Your task to perform on an android device: toggle data saver in the chrome app Image 0: 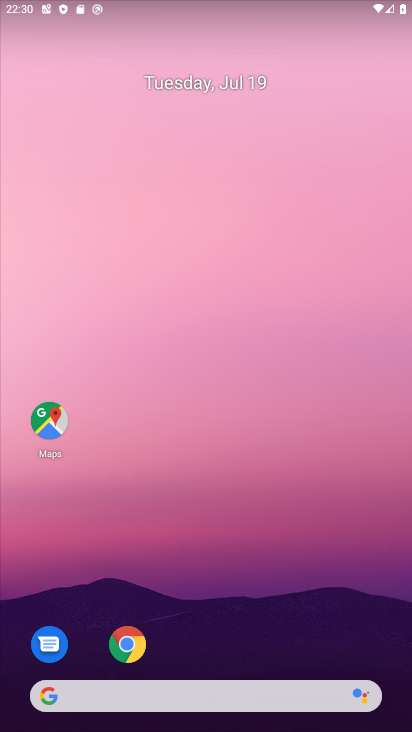
Step 0: drag from (228, 729) to (210, 316)
Your task to perform on an android device: toggle data saver in the chrome app Image 1: 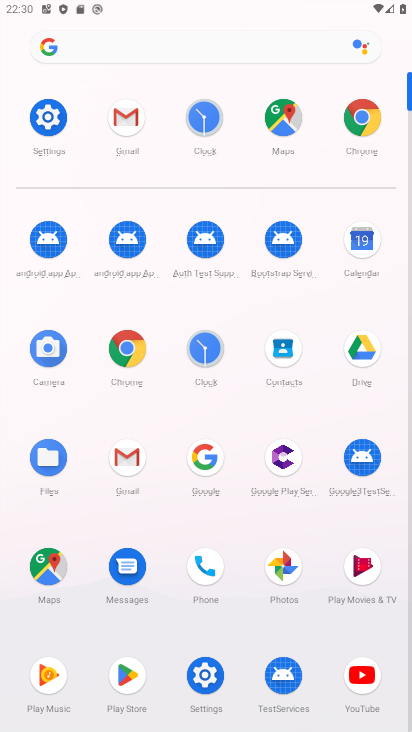
Step 1: click (362, 118)
Your task to perform on an android device: toggle data saver in the chrome app Image 2: 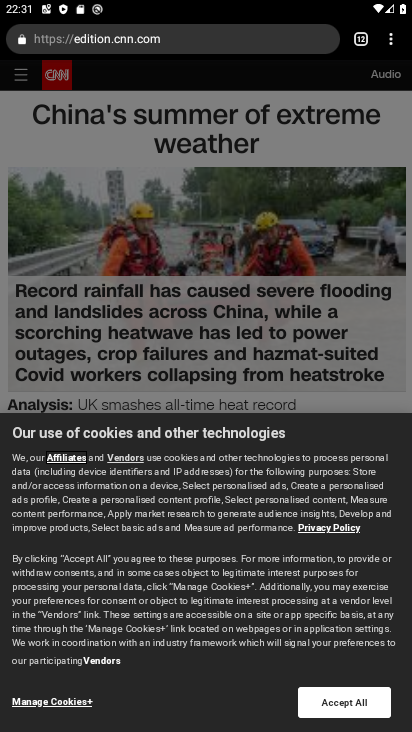
Step 2: click (389, 44)
Your task to perform on an android device: toggle data saver in the chrome app Image 3: 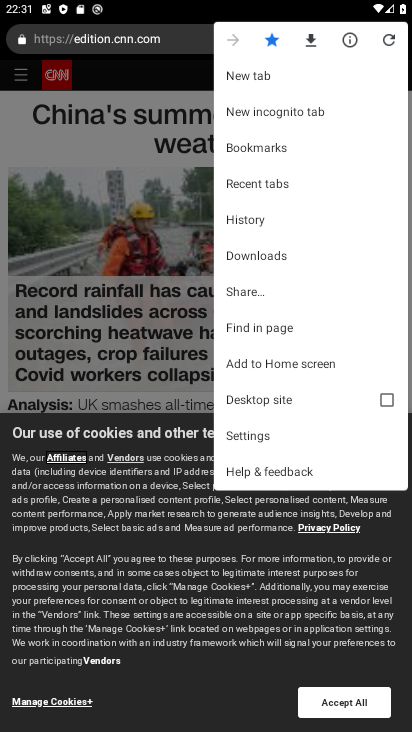
Step 3: click (257, 434)
Your task to perform on an android device: toggle data saver in the chrome app Image 4: 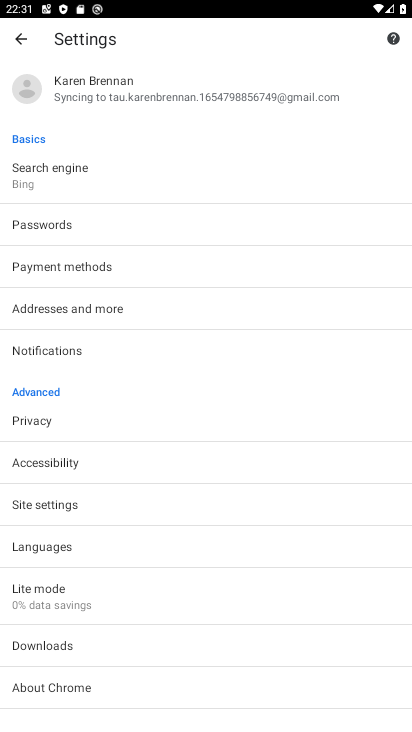
Step 4: click (41, 590)
Your task to perform on an android device: toggle data saver in the chrome app Image 5: 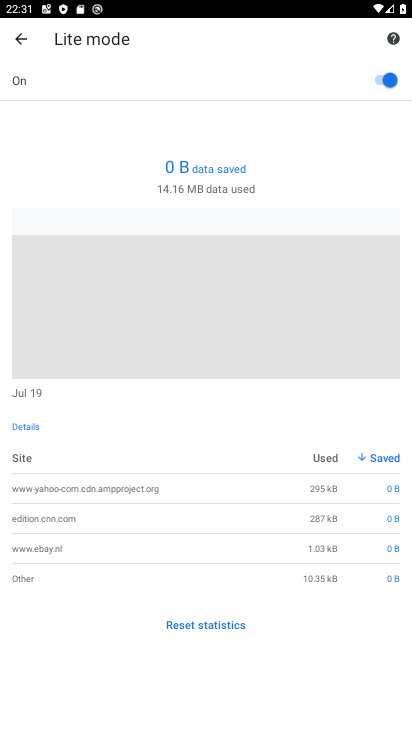
Step 5: click (377, 82)
Your task to perform on an android device: toggle data saver in the chrome app Image 6: 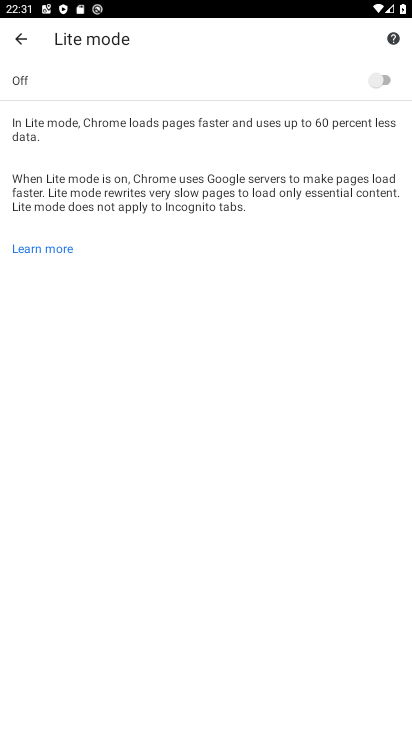
Step 6: task complete